Your task to perform on an android device: change alarm snooze length Image 0: 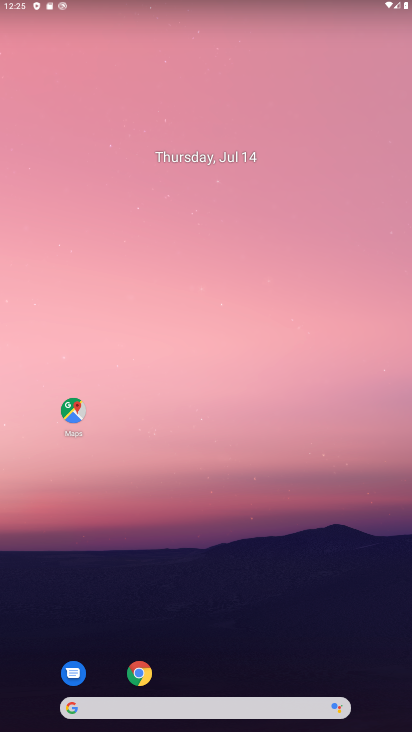
Step 0: drag from (181, 681) to (270, 109)
Your task to perform on an android device: change alarm snooze length Image 1: 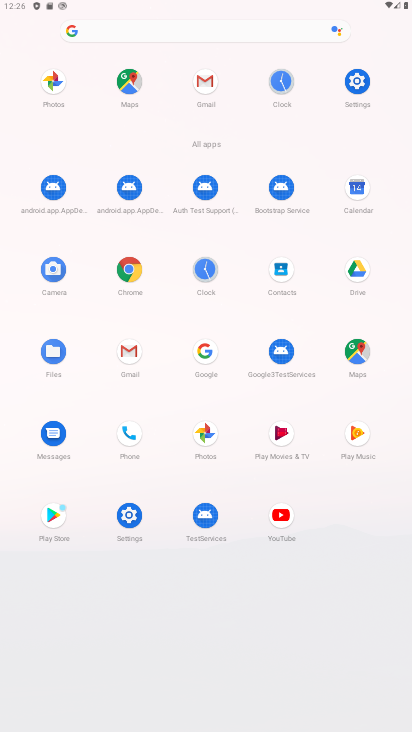
Step 1: click (208, 276)
Your task to perform on an android device: change alarm snooze length Image 2: 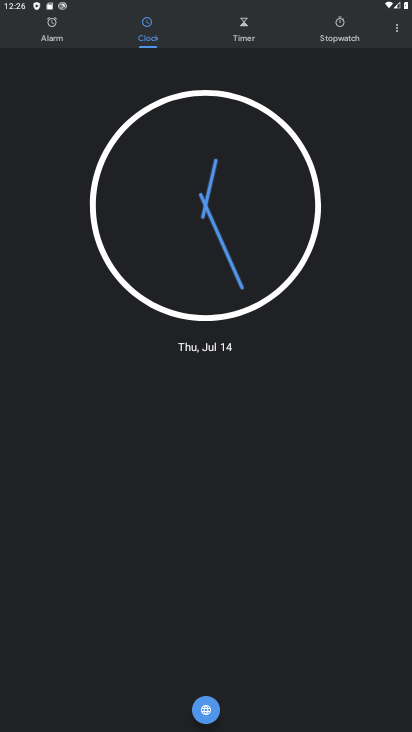
Step 2: click (388, 25)
Your task to perform on an android device: change alarm snooze length Image 3: 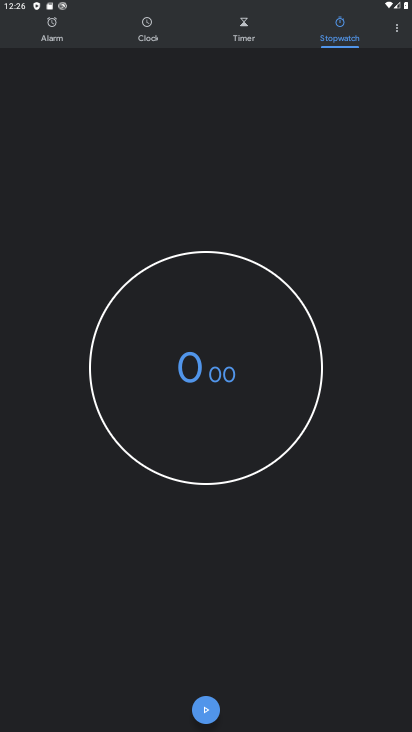
Step 3: click (396, 30)
Your task to perform on an android device: change alarm snooze length Image 4: 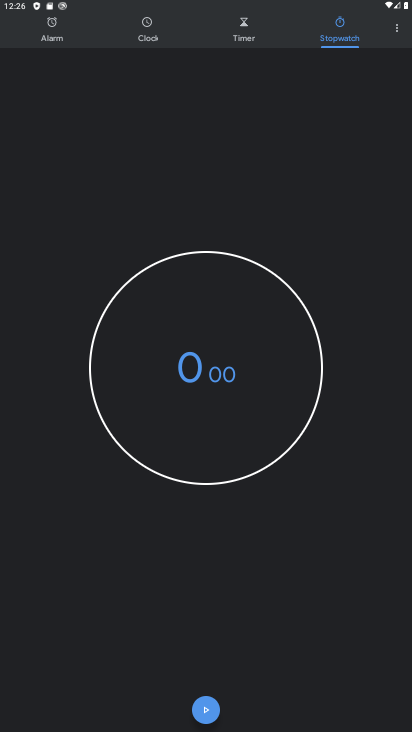
Step 4: click (396, 30)
Your task to perform on an android device: change alarm snooze length Image 5: 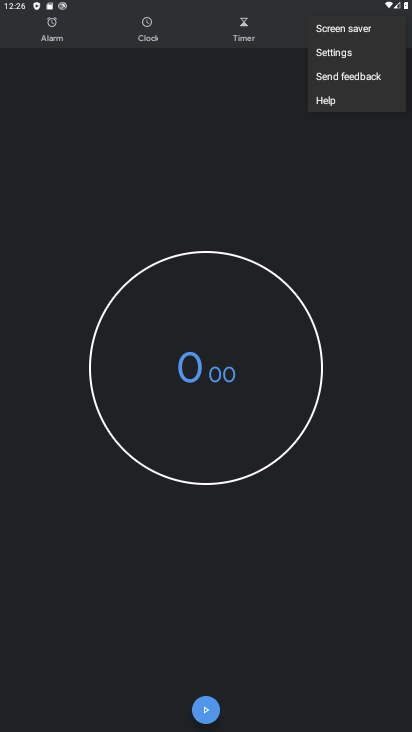
Step 5: click (366, 54)
Your task to perform on an android device: change alarm snooze length Image 6: 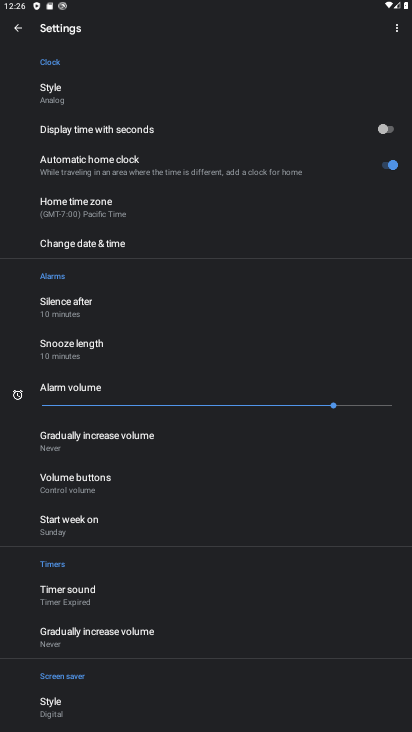
Step 6: drag from (156, 657) to (231, 391)
Your task to perform on an android device: change alarm snooze length Image 7: 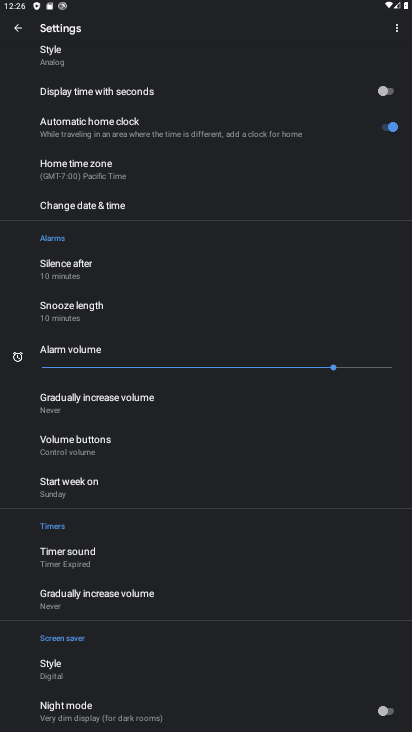
Step 7: drag from (161, 604) to (240, 342)
Your task to perform on an android device: change alarm snooze length Image 8: 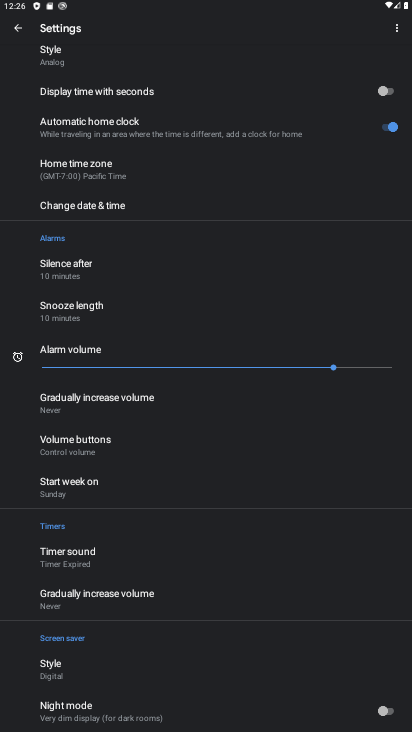
Step 8: click (182, 306)
Your task to perform on an android device: change alarm snooze length Image 9: 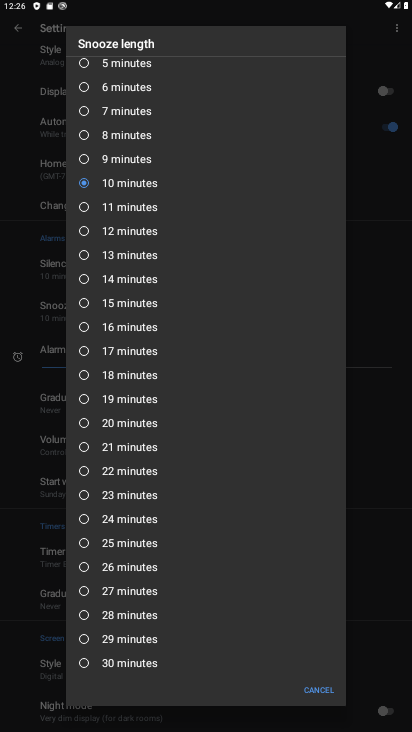
Step 9: click (139, 427)
Your task to perform on an android device: change alarm snooze length Image 10: 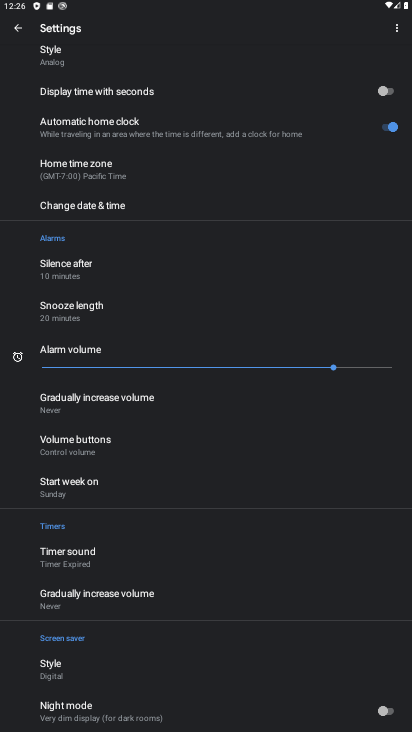
Step 10: task complete